Your task to perform on an android device: Go to battery settings Image 0: 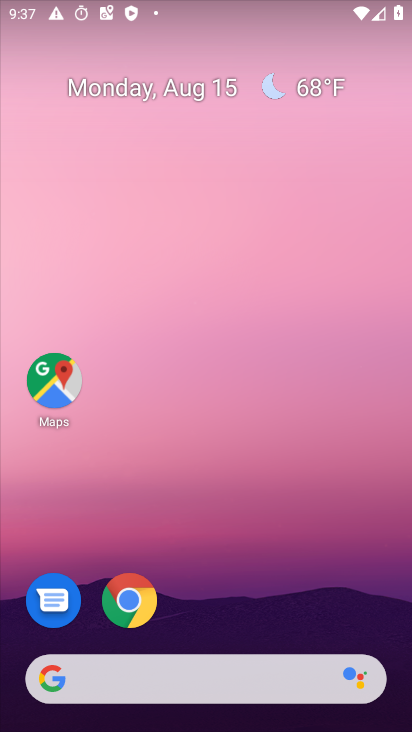
Step 0: drag from (245, 629) to (232, 85)
Your task to perform on an android device: Go to battery settings Image 1: 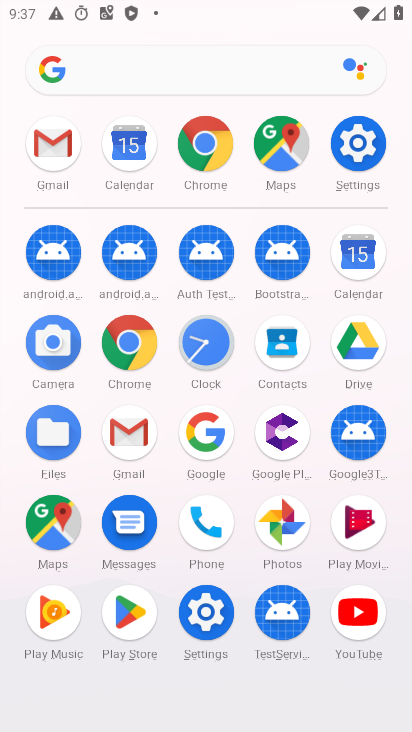
Step 1: click (362, 143)
Your task to perform on an android device: Go to battery settings Image 2: 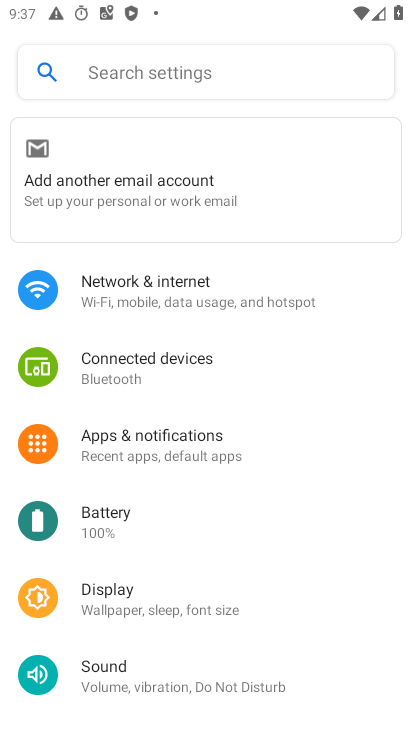
Step 2: click (103, 514)
Your task to perform on an android device: Go to battery settings Image 3: 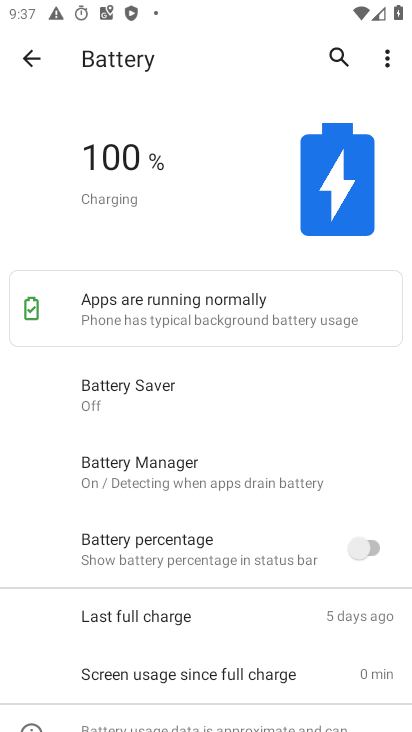
Step 3: task complete